Your task to perform on an android device: turn on bluetooth scan Image 0: 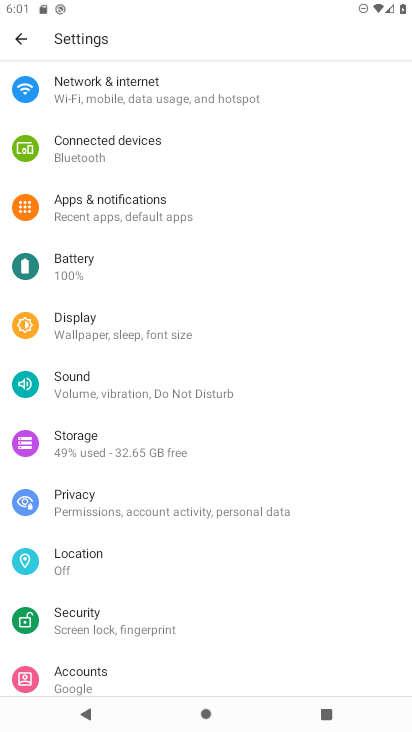
Step 0: press home button
Your task to perform on an android device: turn on bluetooth scan Image 1: 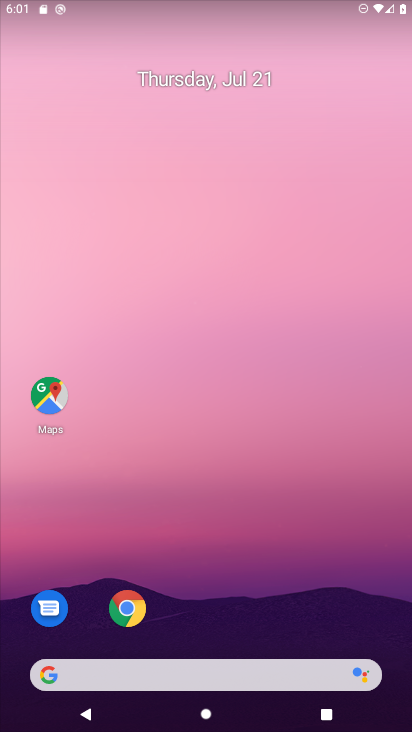
Step 1: drag from (176, 667) to (294, 135)
Your task to perform on an android device: turn on bluetooth scan Image 2: 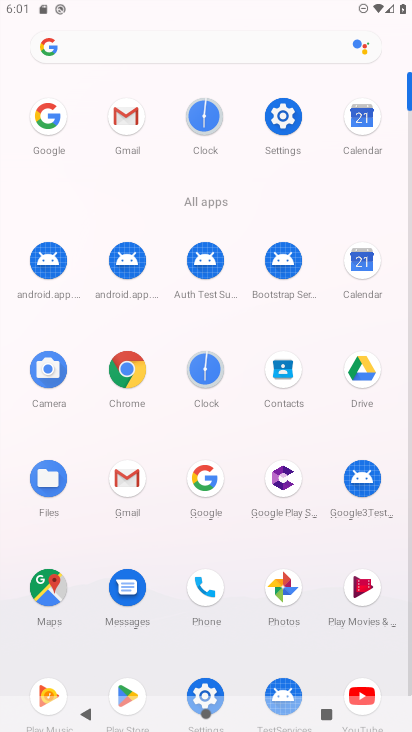
Step 2: click (284, 114)
Your task to perform on an android device: turn on bluetooth scan Image 3: 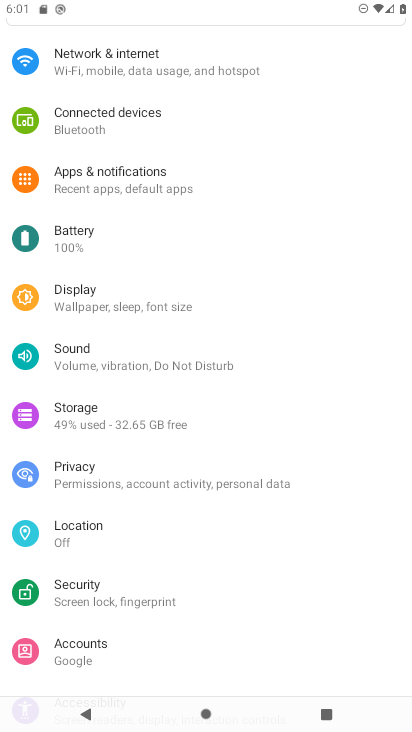
Step 3: click (82, 531)
Your task to perform on an android device: turn on bluetooth scan Image 4: 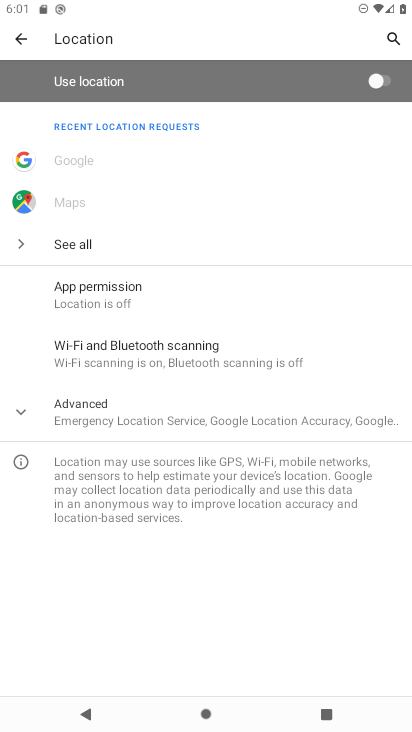
Step 4: click (188, 348)
Your task to perform on an android device: turn on bluetooth scan Image 5: 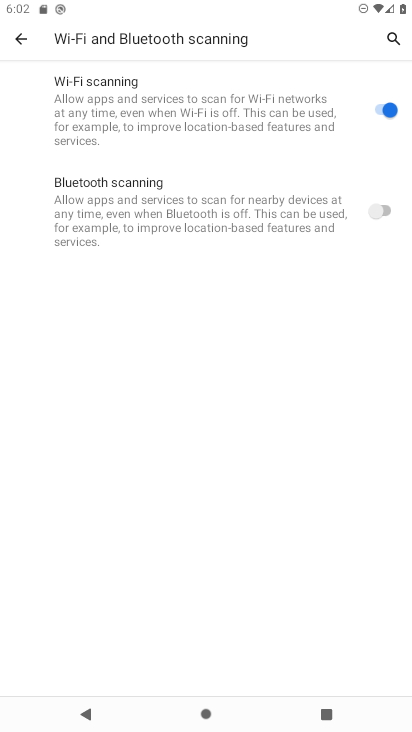
Step 5: click (375, 208)
Your task to perform on an android device: turn on bluetooth scan Image 6: 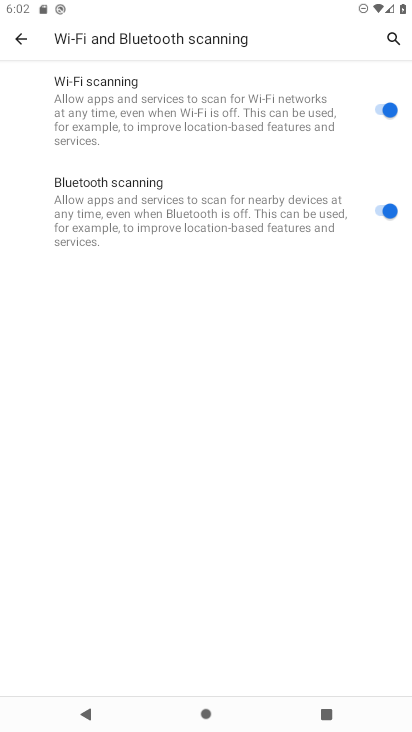
Step 6: task complete